Your task to perform on an android device: Is it going to rain today? Image 0: 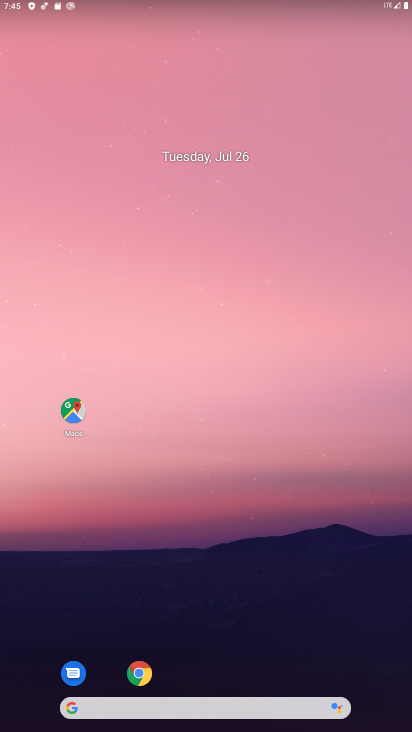
Step 0: drag from (378, 636) to (131, 14)
Your task to perform on an android device: Is it going to rain today? Image 1: 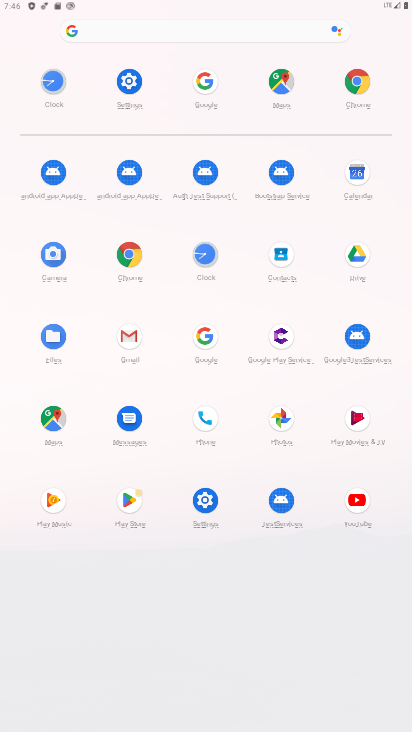
Step 1: click (200, 329)
Your task to perform on an android device: Is it going to rain today? Image 2: 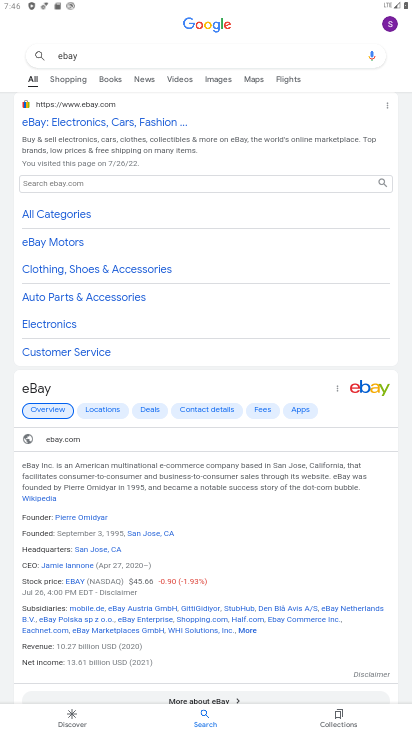
Step 2: press back button
Your task to perform on an android device: Is it going to rain today? Image 3: 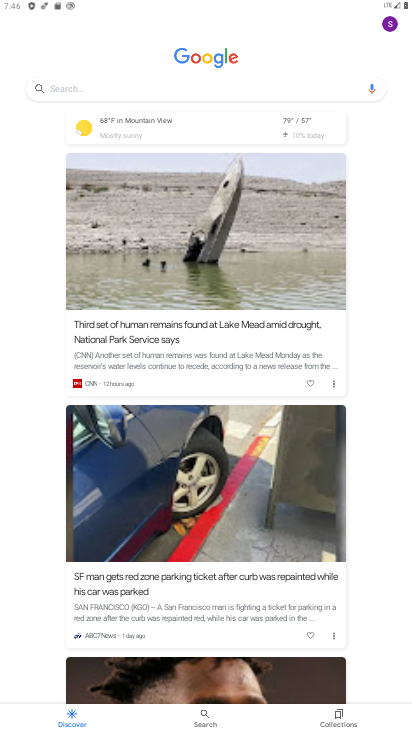
Step 3: click (106, 85)
Your task to perform on an android device: Is it going to rain today? Image 4: 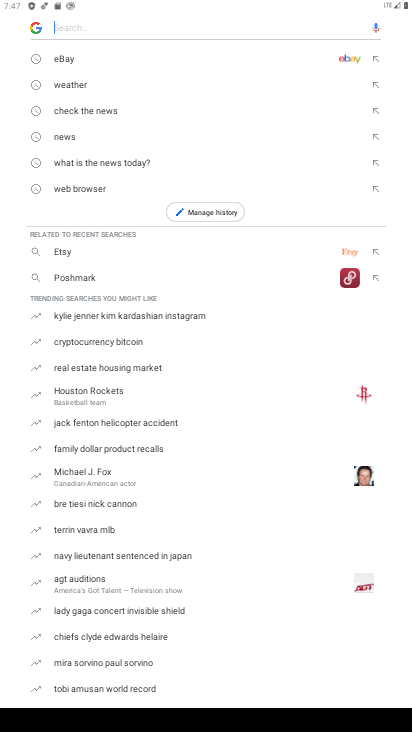
Step 4: type "Is it going to rain today?"
Your task to perform on an android device: Is it going to rain today? Image 5: 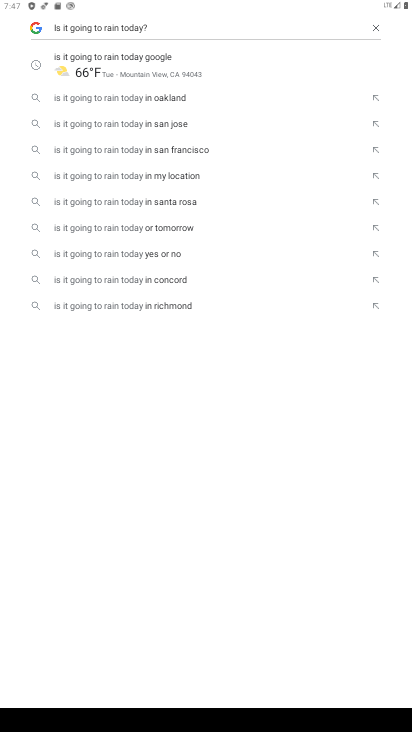
Step 5: click (106, 50)
Your task to perform on an android device: Is it going to rain today? Image 6: 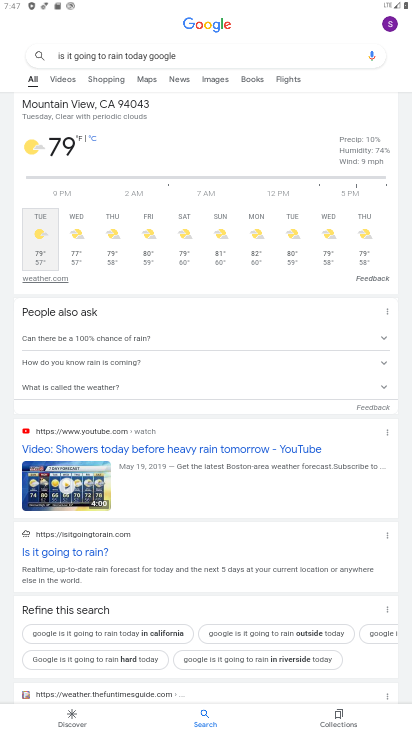
Step 6: task complete